Your task to perform on an android device: Go to calendar. Show me events next week Image 0: 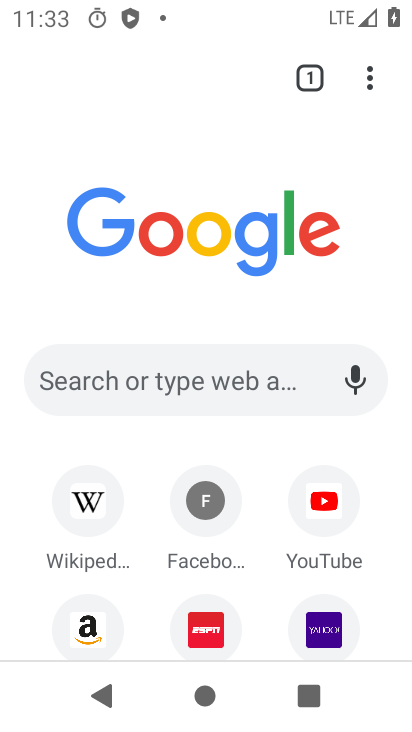
Step 0: press back button
Your task to perform on an android device: Go to calendar. Show me events next week Image 1: 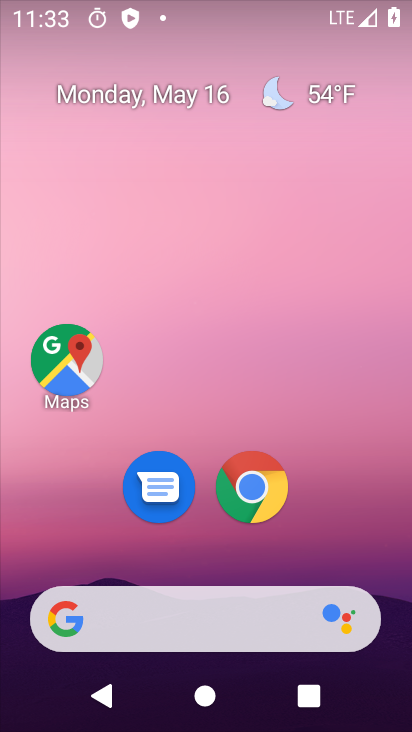
Step 1: drag from (174, 531) to (242, 31)
Your task to perform on an android device: Go to calendar. Show me events next week Image 2: 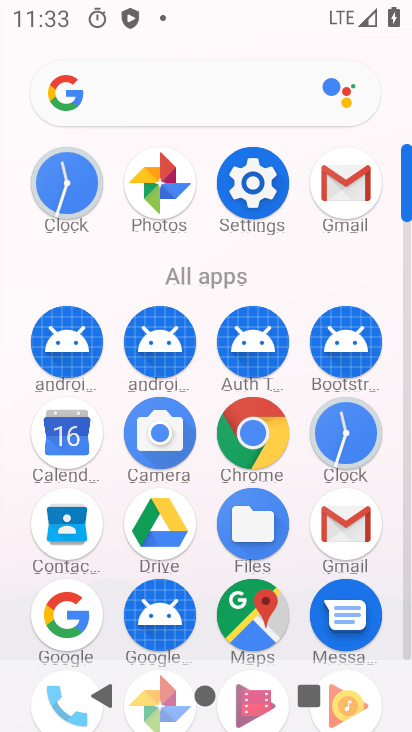
Step 2: click (66, 448)
Your task to perform on an android device: Go to calendar. Show me events next week Image 3: 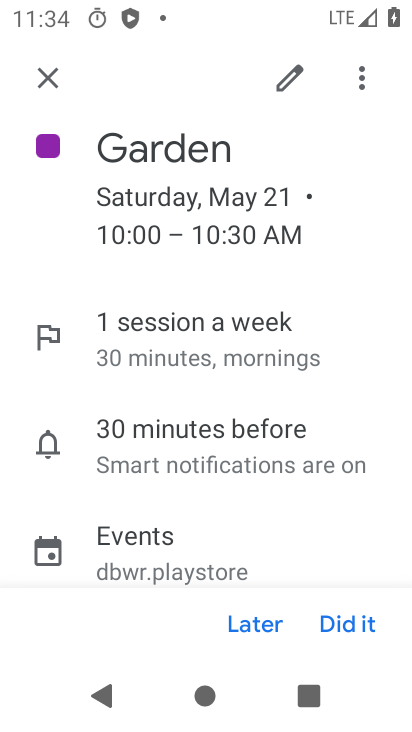
Step 3: click (48, 78)
Your task to perform on an android device: Go to calendar. Show me events next week Image 4: 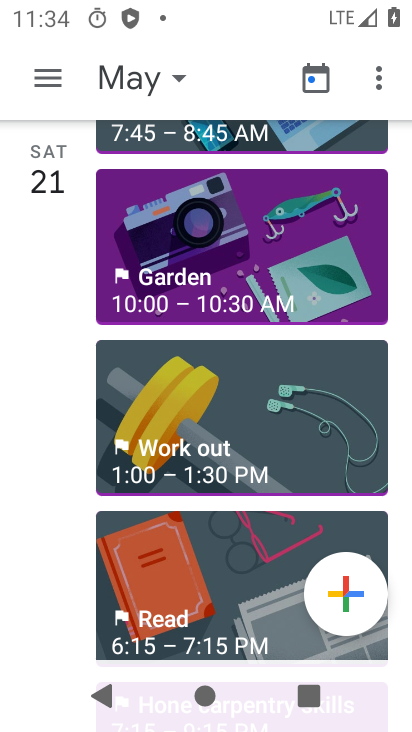
Step 4: drag from (194, 594) to (283, 62)
Your task to perform on an android device: Go to calendar. Show me events next week Image 5: 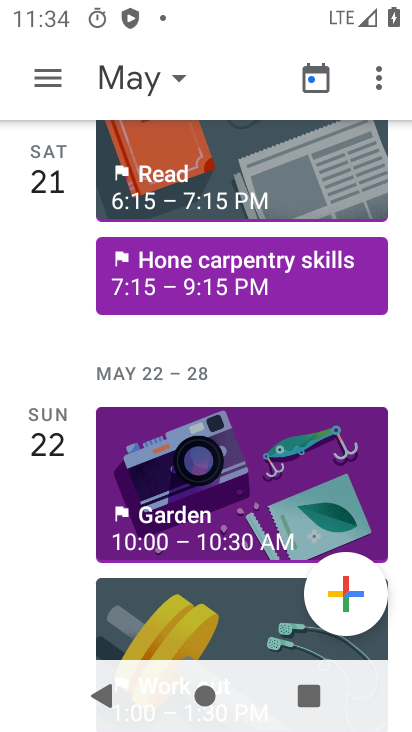
Step 5: drag from (167, 551) to (250, 29)
Your task to perform on an android device: Go to calendar. Show me events next week Image 6: 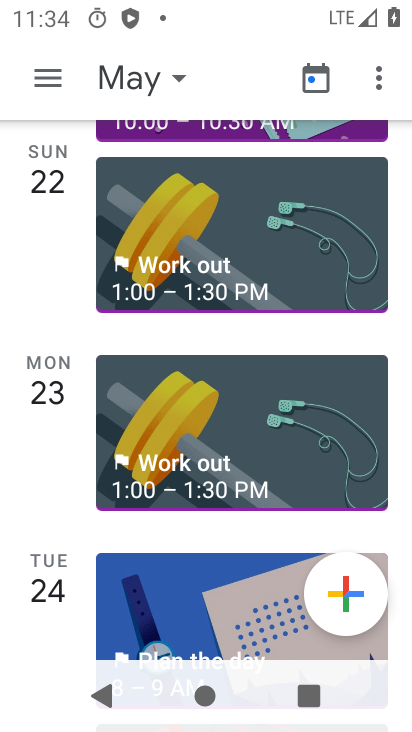
Step 6: drag from (177, 575) to (243, 208)
Your task to perform on an android device: Go to calendar. Show me events next week Image 7: 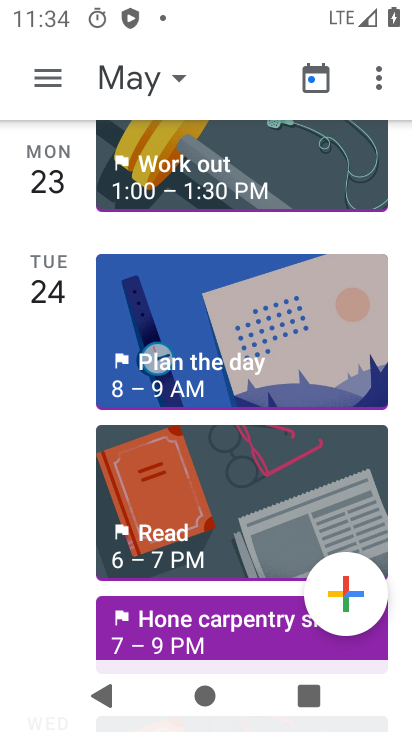
Step 7: click (161, 332)
Your task to perform on an android device: Go to calendar. Show me events next week Image 8: 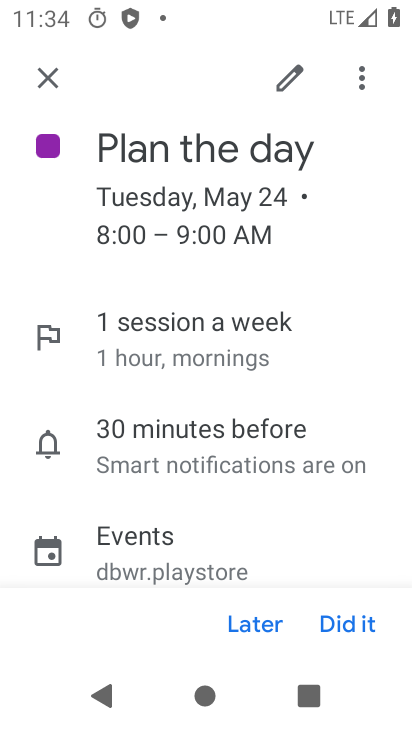
Step 8: task complete